Your task to perform on an android device: What is the recent news? Image 0: 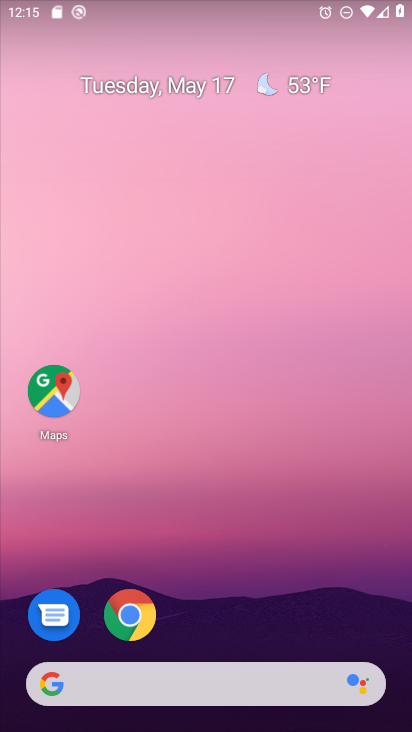
Step 0: drag from (221, 656) to (293, 210)
Your task to perform on an android device: What is the recent news? Image 1: 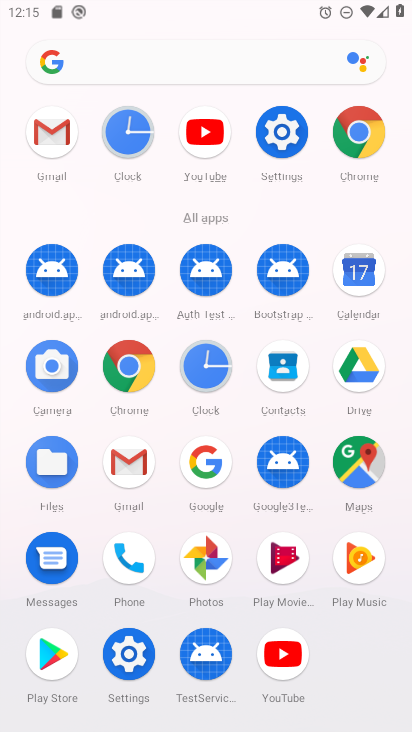
Step 1: click (212, 463)
Your task to perform on an android device: What is the recent news? Image 2: 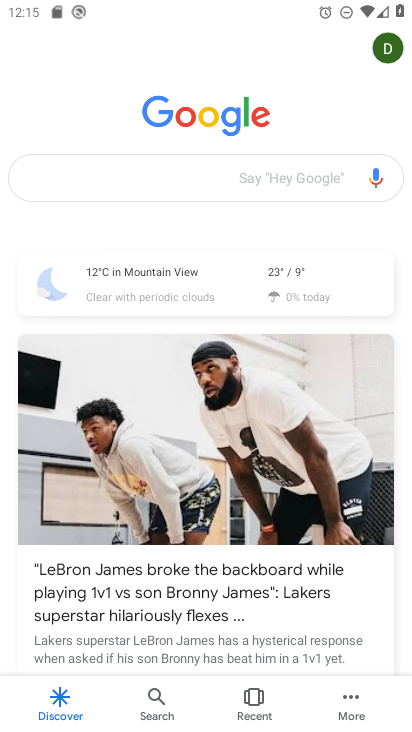
Step 2: click (159, 177)
Your task to perform on an android device: What is the recent news? Image 3: 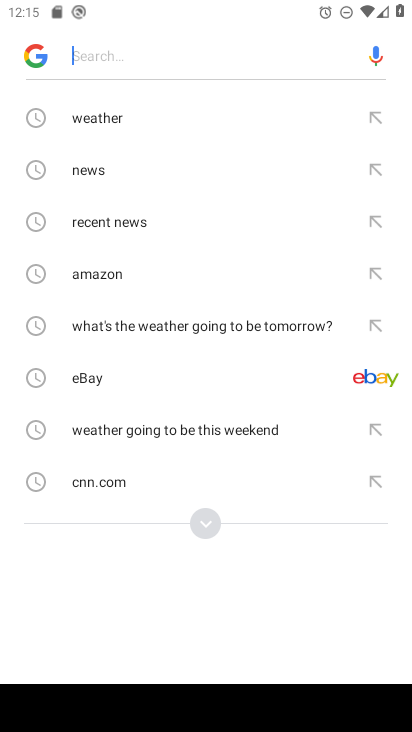
Step 3: click (112, 200)
Your task to perform on an android device: What is the recent news? Image 4: 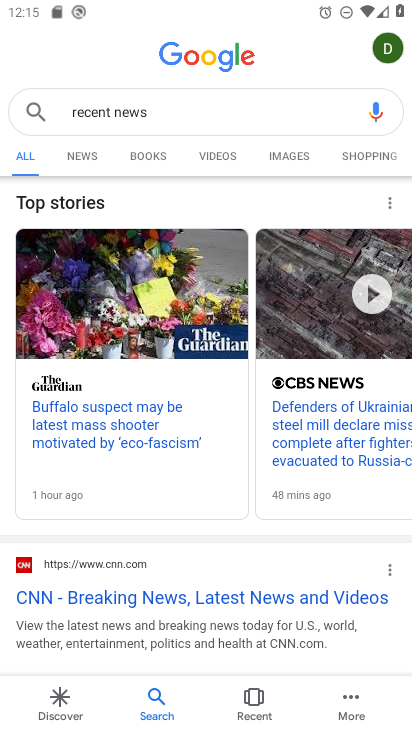
Step 4: task complete